Your task to perform on an android device: Open settings Image 0: 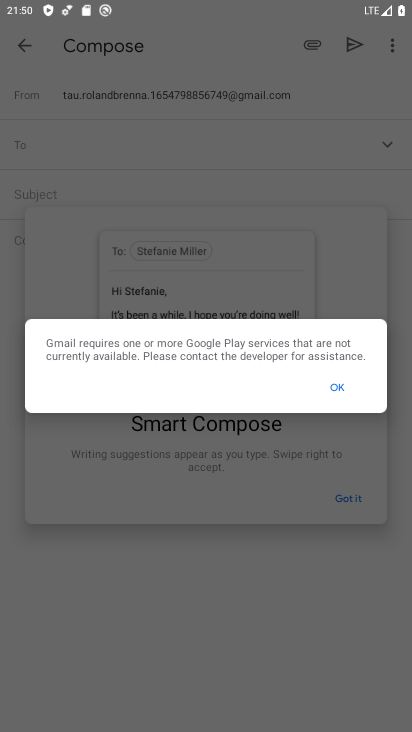
Step 0: press home button
Your task to perform on an android device: Open settings Image 1: 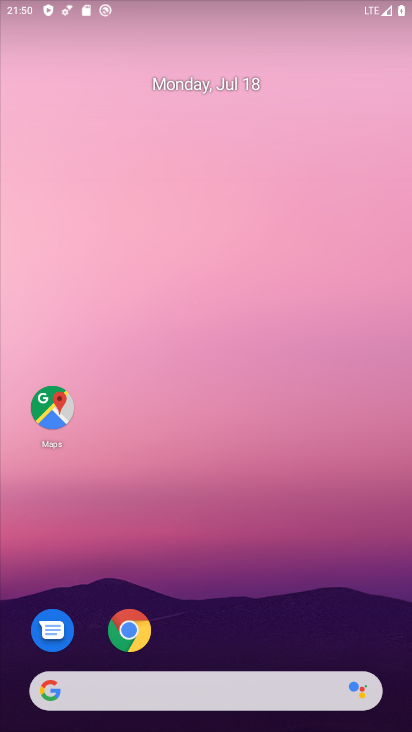
Step 1: drag from (257, 619) to (236, 134)
Your task to perform on an android device: Open settings Image 2: 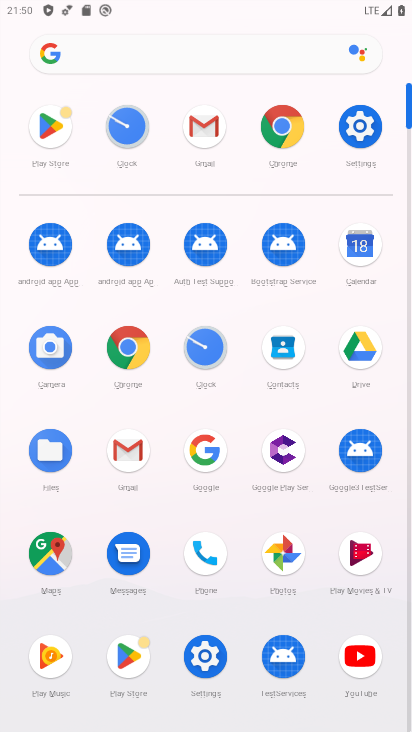
Step 2: click (364, 122)
Your task to perform on an android device: Open settings Image 3: 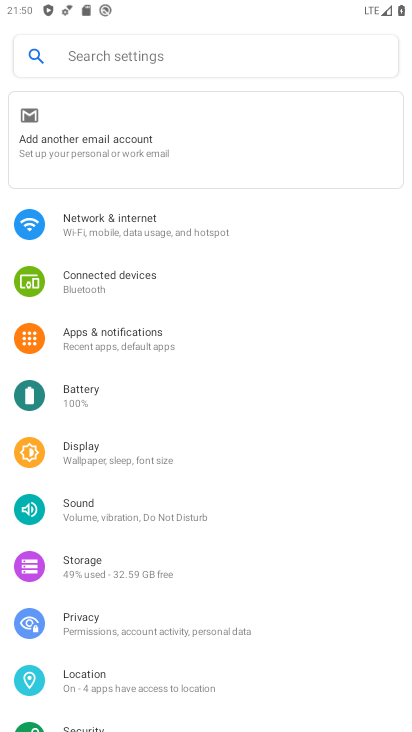
Step 3: task complete